Your task to perform on an android device: Do I have any events tomorrow? Image 0: 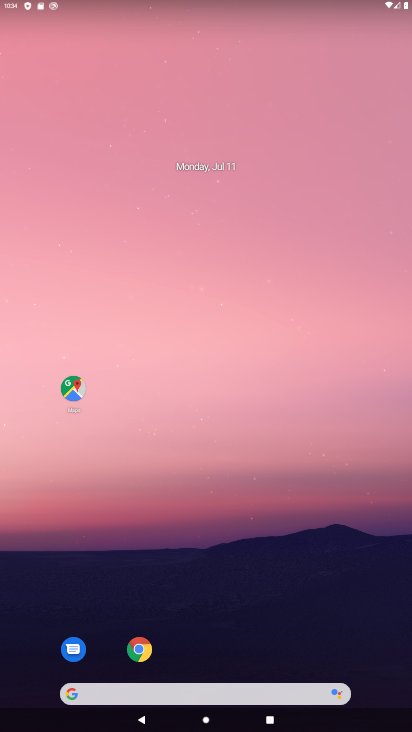
Step 0: drag from (254, 608) to (261, 198)
Your task to perform on an android device: Do I have any events tomorrow? Image 1: 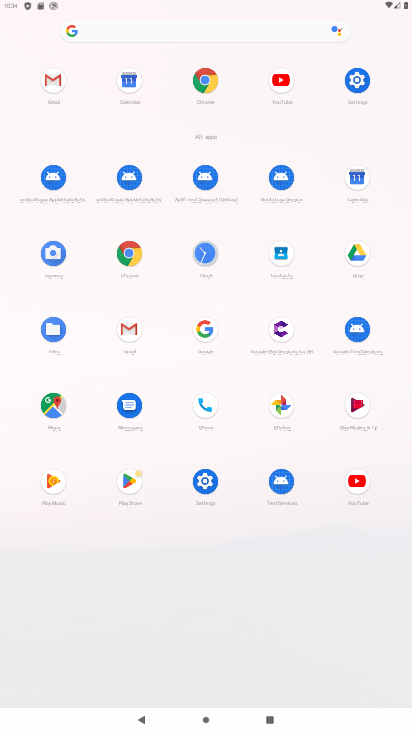
Step 1: click (362, 182)
Your task to perform on an android device: Do I have any events tomorrow? Image 2: 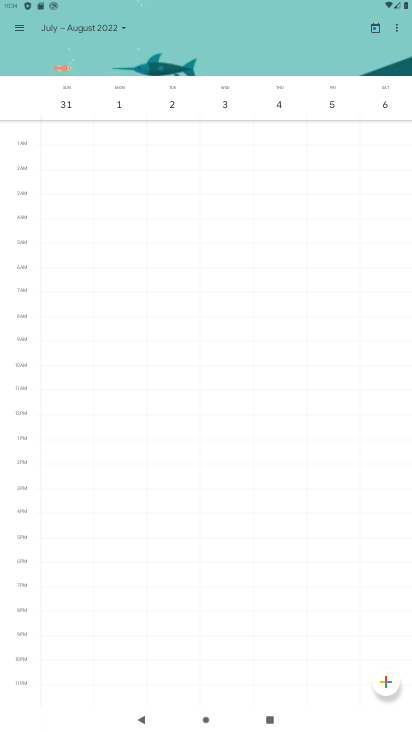
Step 2: click (109, 27)
Your task to perform on an android device: Do I have any events tomorrow? Image 3: 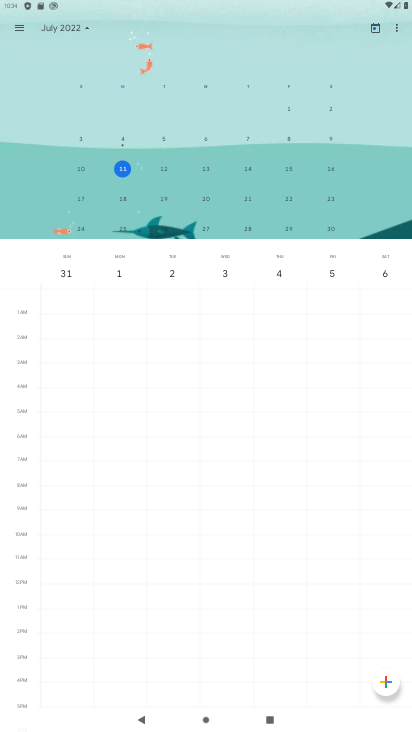
Step 3: drag from (81, 187) to (388, 178)
Your task to perform on an android device: Do I have any events tomorrow? Image 4: 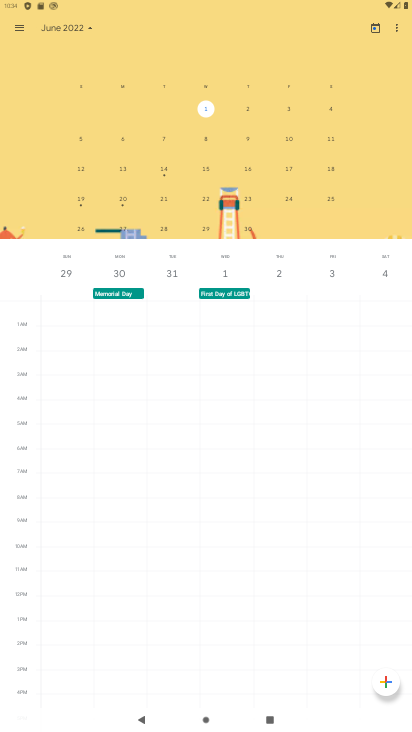
Step 4: drag from (327, 161) to (65, 169)
Your task to perform on an android device: Do I have any events tomorrow? Image 5: 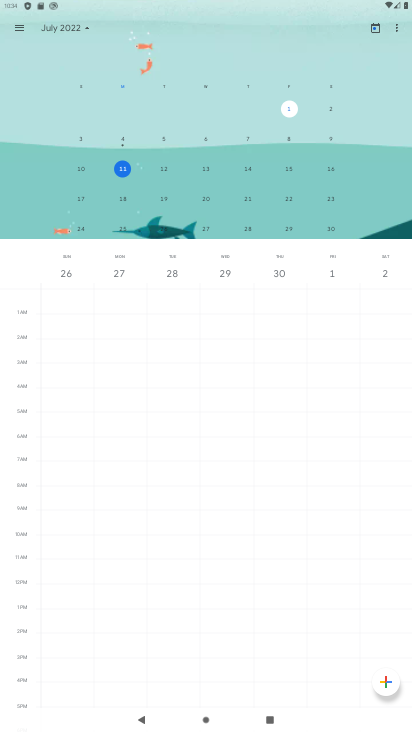
Step 5: click (162, 168)
Your task to perform on an android device: Do I have any events tomorrow? Image 6: 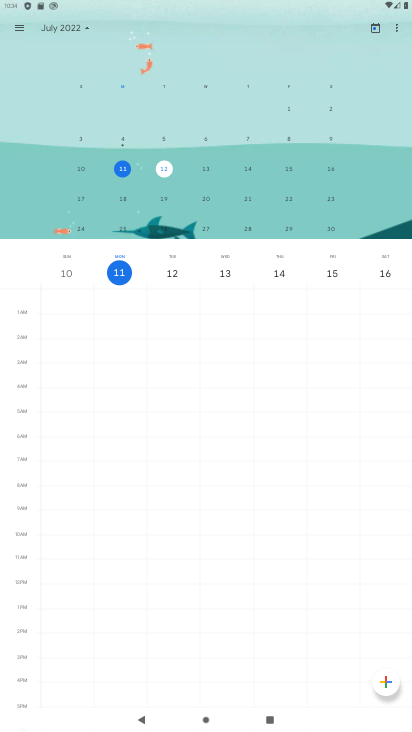
Step 6: click (173, 262)
Your task to perform on an android device: Do I have any events tomorrow? Image 7: 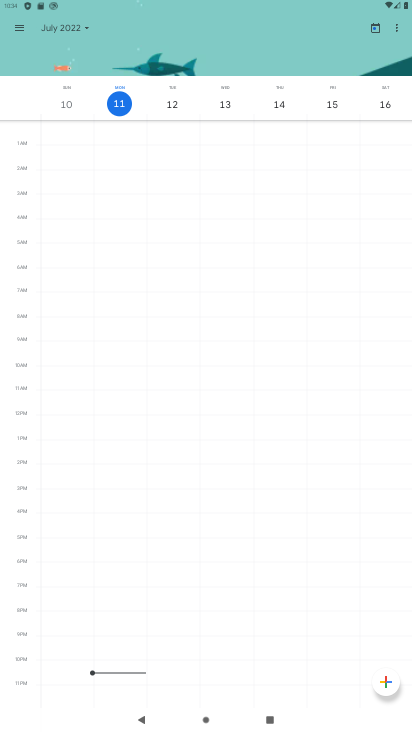
Step 7: task complete